Your task to perform on an android device: Search for vegetarian restaurants on Maps Image 0: 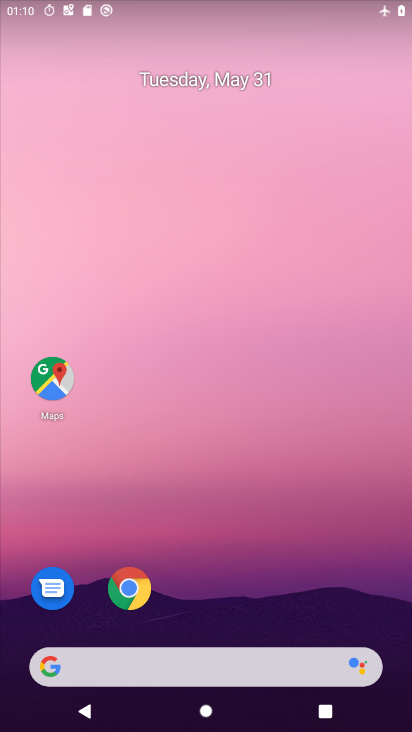
Step 0: drag from (234, 636) to (214, 13)
Your task to perform on an android device: Search for vegetarian restaurants on Maps Image 1: 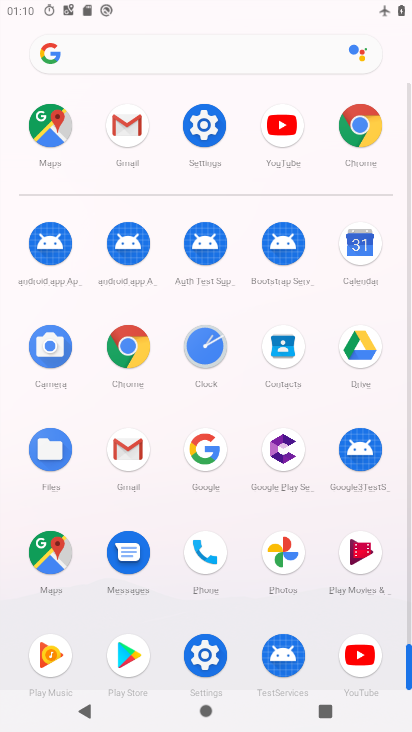
Step 1: click (60, 565)
Your task to perform on an android device: Search for vegetarian restaurants on Maps Image 2: 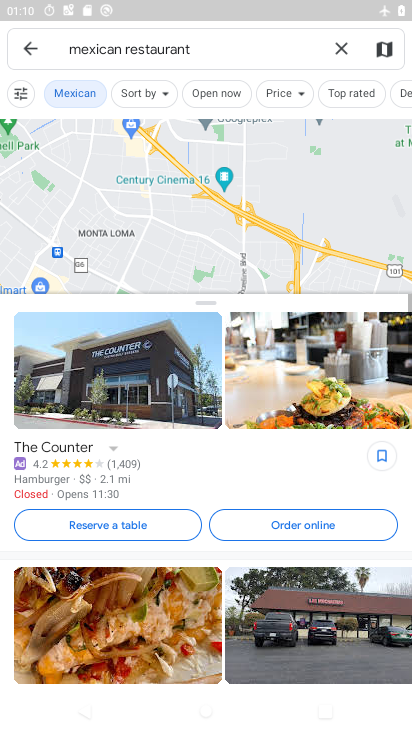
Step 2: click (347, 41)
Your task to perform on an android device: Search for vegetarian restaurants on Maps Image 3: 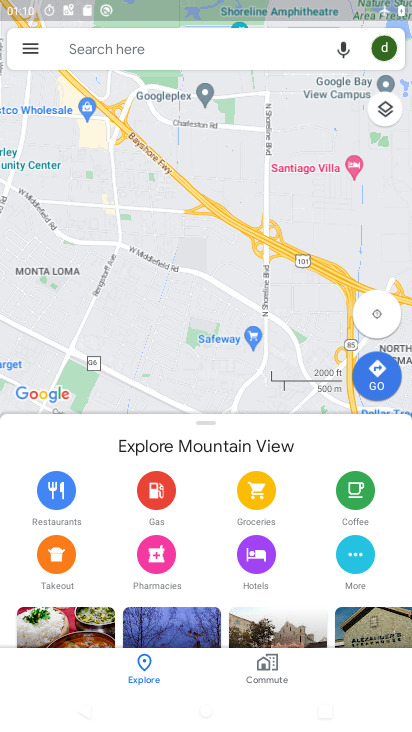
Step 3: click (107, 49)
Your task to perform on an android device: Search for vegetarian restaurants on Maps Image 4: 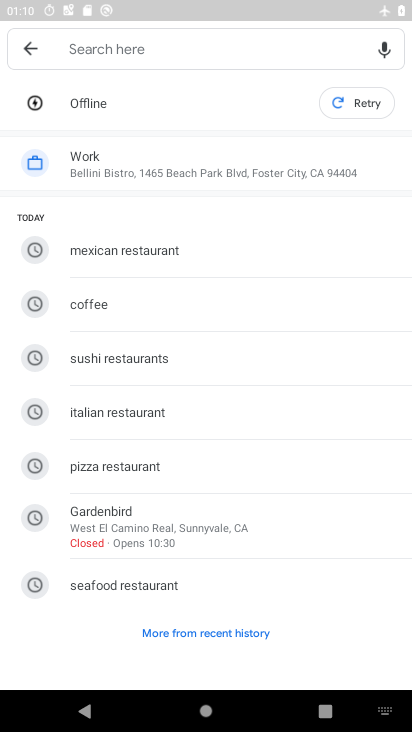
Step 4: type "vegetarian restaurant"
Your task to perform on an android device: Search for vegetarian restaurants on Maps Image 5: 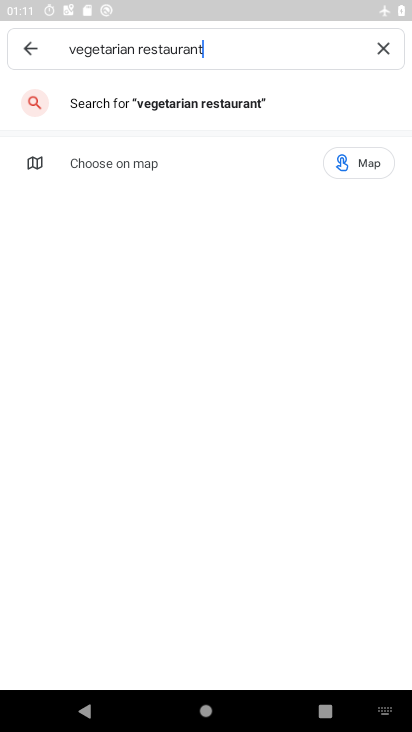
Step 5: task complete